Your task to perform on an android device: set the timer Image 0: 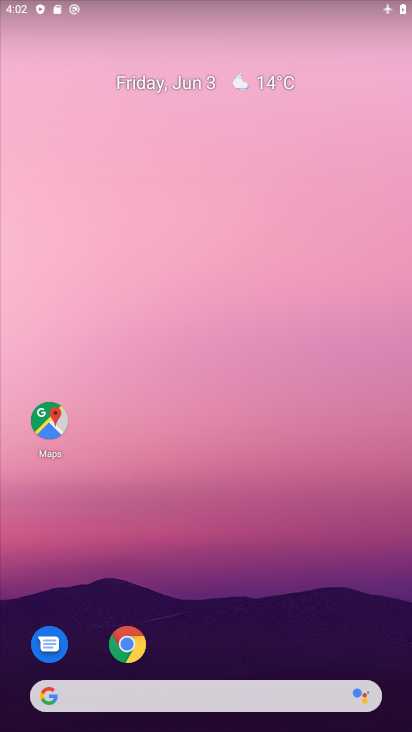
Step 0: drag from (323, 664) to (341, 2)
Your task to perform on an android device: set the timer Image 1: 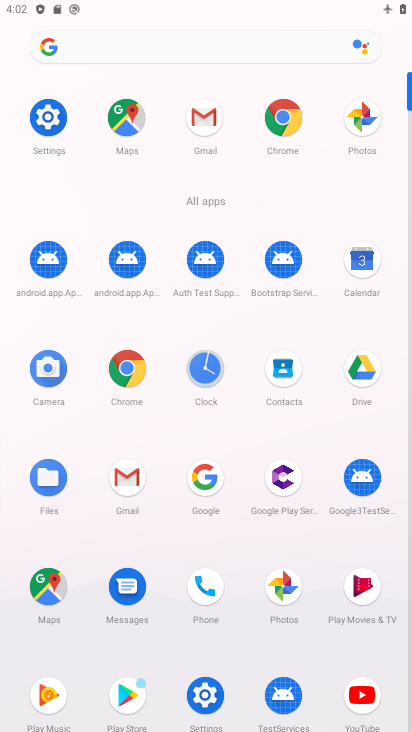
Step 1: click (208, 381)
Your task to perform on an android device: set the timer Image 2: 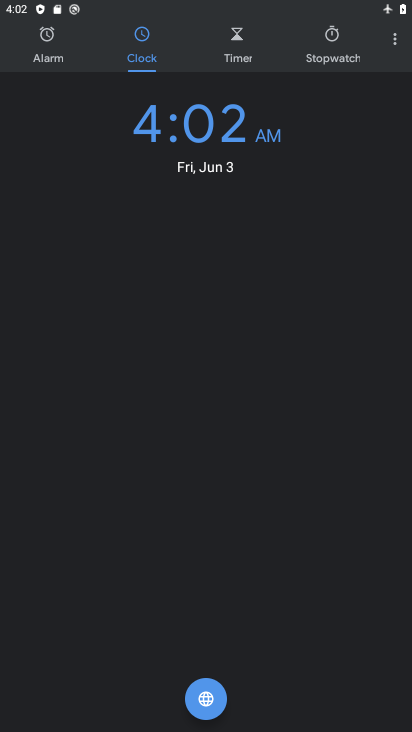
Step 2: click (228, 52)
Your task to perform on an android device: set the timer Image 3: 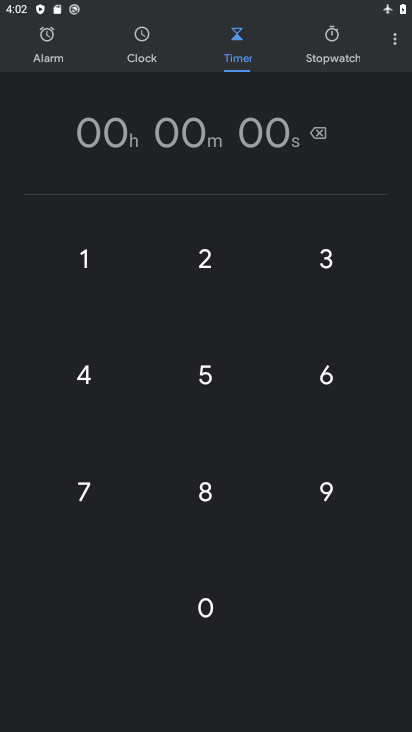
Step 3: click (206, 375)
Your task to perform on an android device: set the timer Image 4: 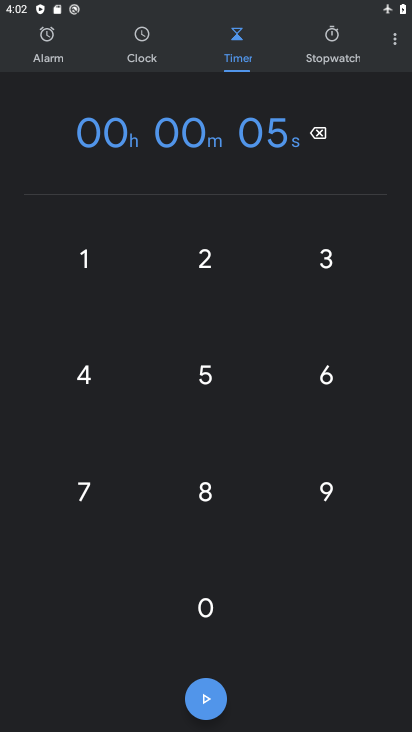
Step 4: click (221, 699)
Your task to perform on an android device: set the timer Image 5: 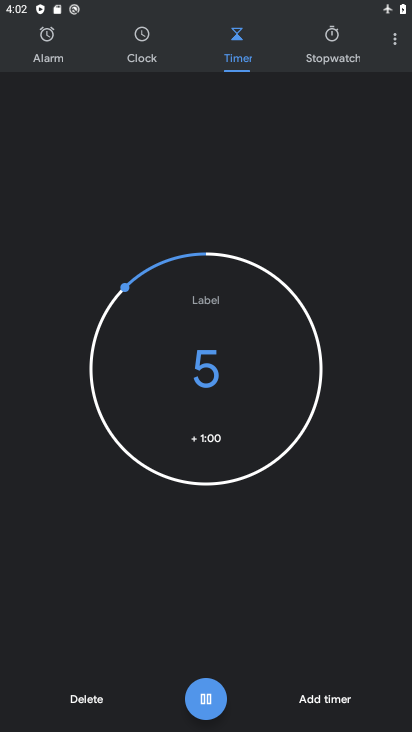
Step 5: task complete